Your task to perform on an android device: Go to sound settings Image 0: 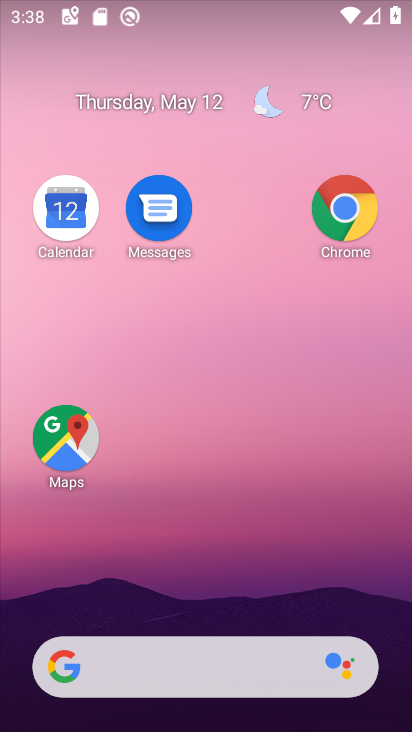
Step 0: drag from (218, 565) to (241, 237)
Your task to perform on an android device: Go to sound settings Image 1: 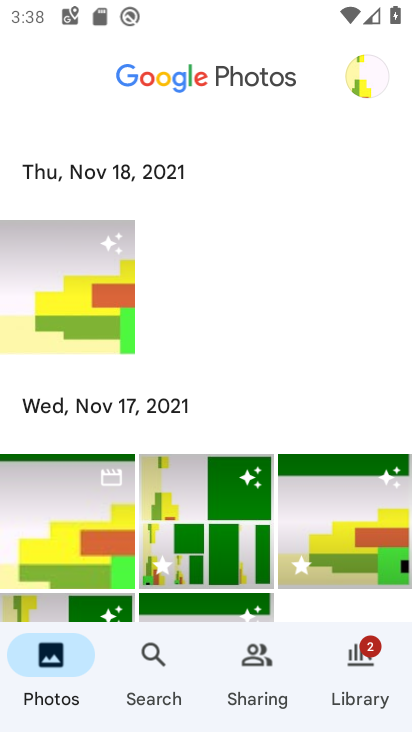
Step 1: drag from (214, 553) to (210, 215)
Your task to perform on an android device: Go to sound settings Image 2: 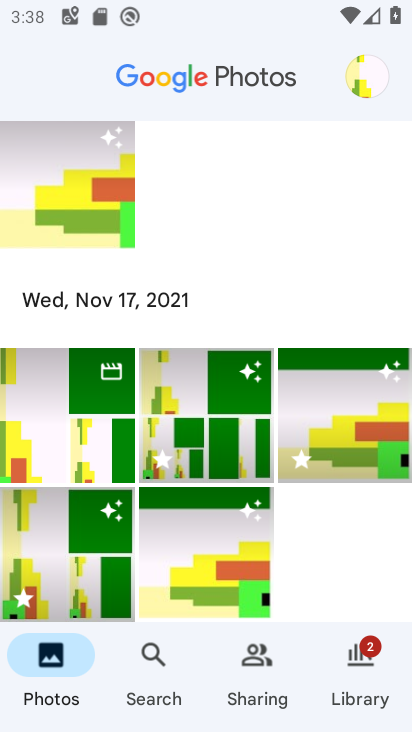
Step 2: drag from (220, 525) to (244, 175)
Your task to perform on an android device: Go to sound settings Image 3: 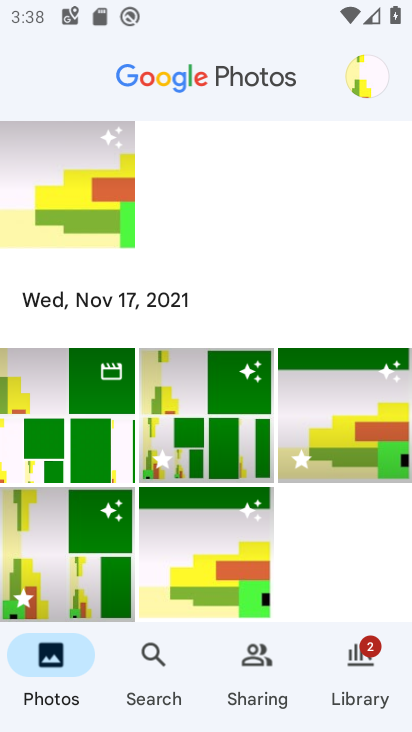
Step 3: drag from (295, 575) to (304, 234)
Your task to perform on an android device: Go to sound settings Image 4: 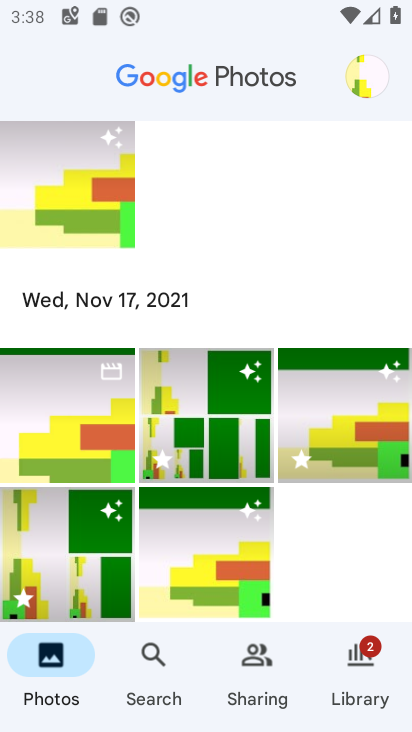
Step 4: press home button
Your task to perform on an android device: Go to sound settings Image 5: 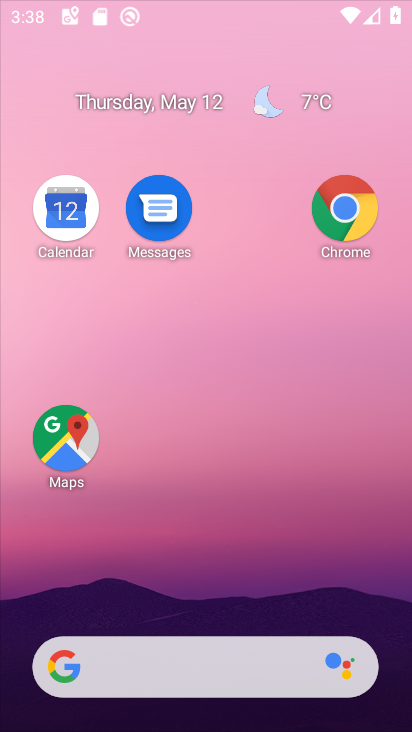
Step 5: drag from (178, 607) to (224, 70)
Your task to perform on an android device: Go to sound settings Image 6: 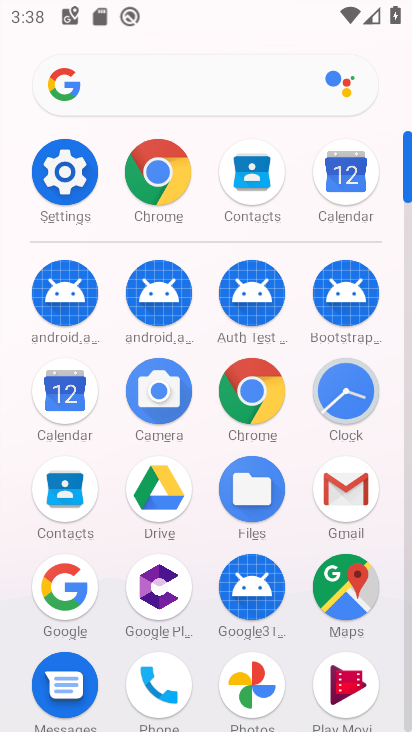
Step 6: click (76, 173)
Your task to perform on an android device: Go to sound settings Image 7: 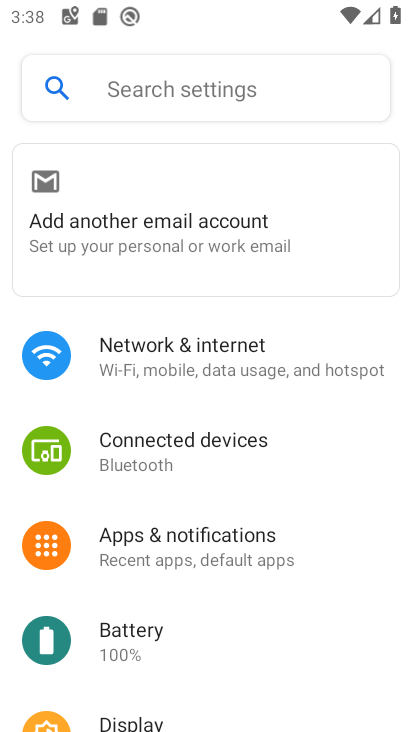
Step 7: drag from (187, 675) to (263, 127)
Your task to perform on an android device: Go to sound settings Image 8: 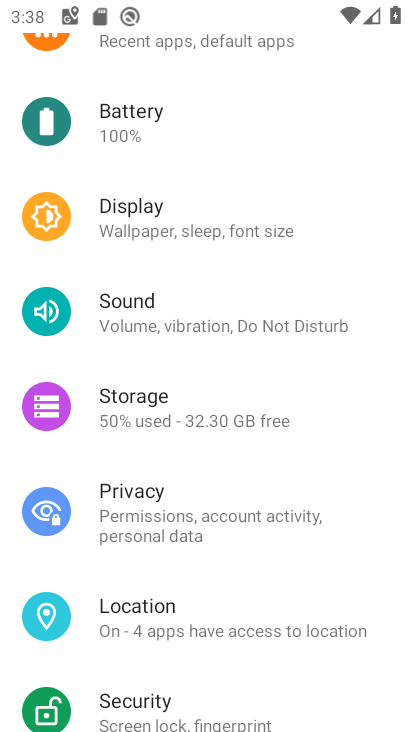
Step 8: click (150, 323)
Your task to perform on an android device: Go to sound settings Image 9: 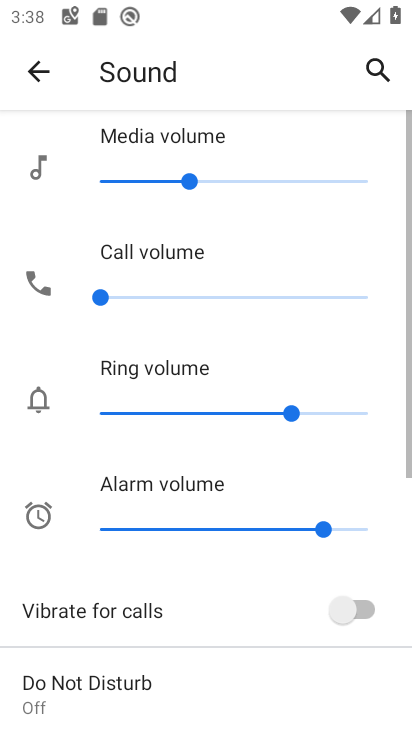
Step 9: task complete